Your task to perform on an android device: delete the emails in spam in the gmail app Image 0: 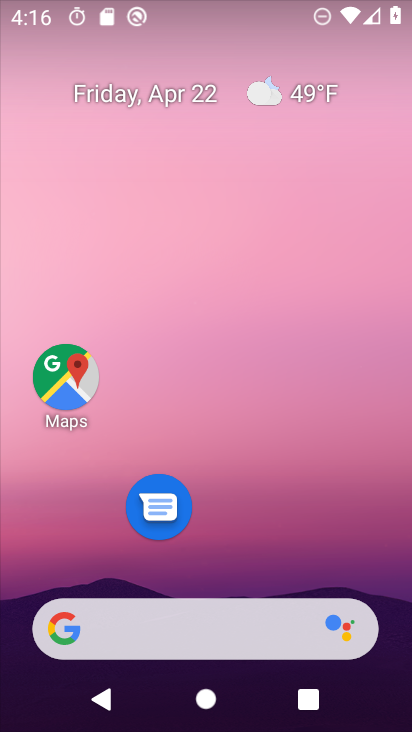
Step 0: drag from (234, 428) to (285, 103)
Your task to perform on an android device: delete the emails in spam in the gmail app Image 1: 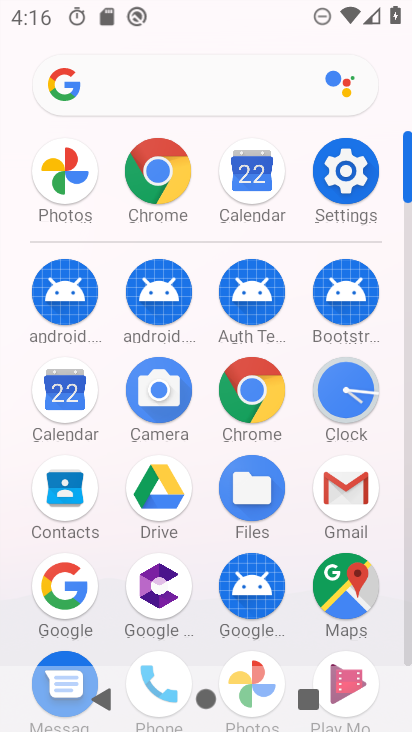
Step 1: click (359, 478)
Your task to perform on an android device: delete the emails in spam in the gmail app Image 2: 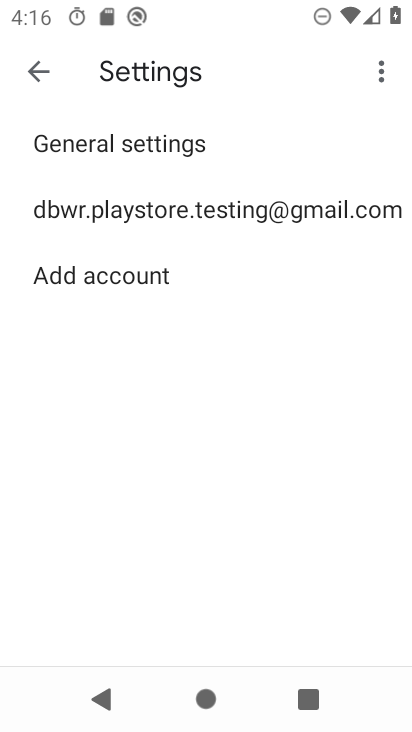
Step 2: press back button
Your task to perform on an android device: delete the emails in spam in the gmail app Image 3: 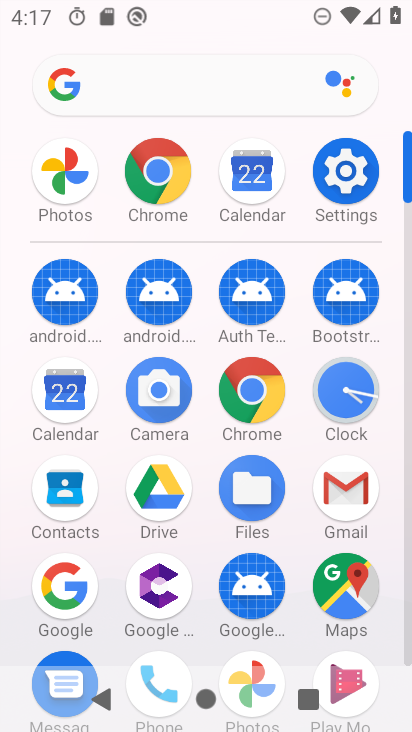
Step 3: click (348, 477)
Your task to perform on an android device: delete the emails in spam in the gmail app Image 4: 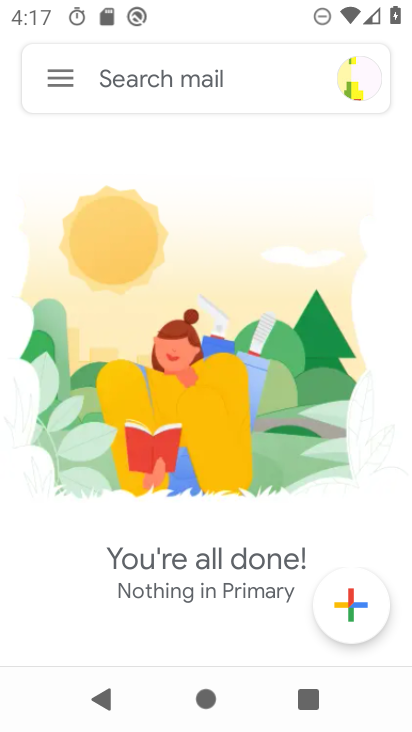
Step 4: click (62, 79)
Your task to perform on an android device: delete the emails in spam in the gmail app Image 5: 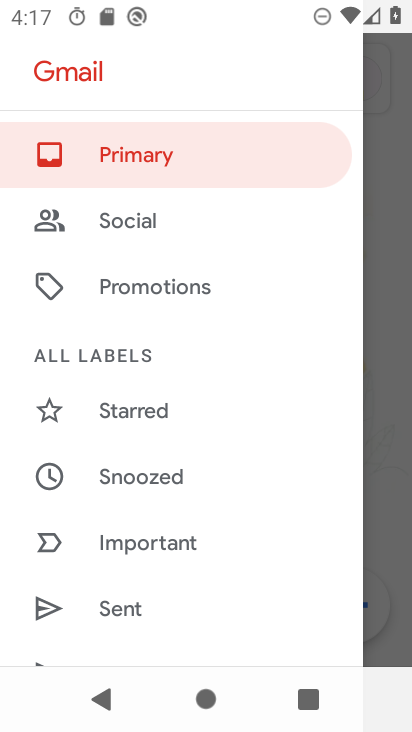
Step 5: drag from (150, 607) to (218, 117)
Your task to perform on an android device: delete the emails in spam in the gmail app Image 6: 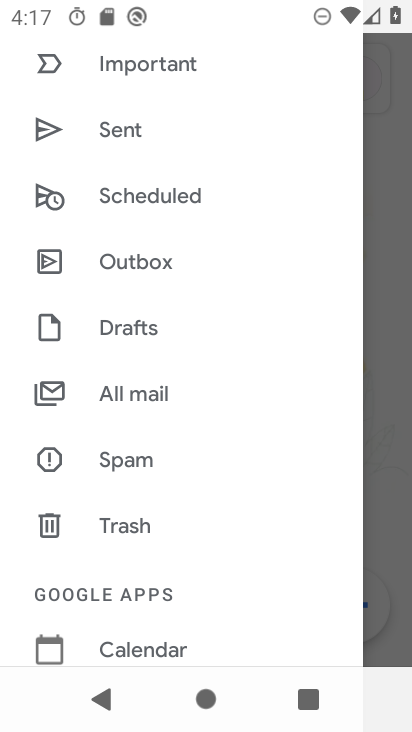
Step 6: click (120, 454)
Your task to perform on an android device: delete the emails in spam in the gmail app Image 7: 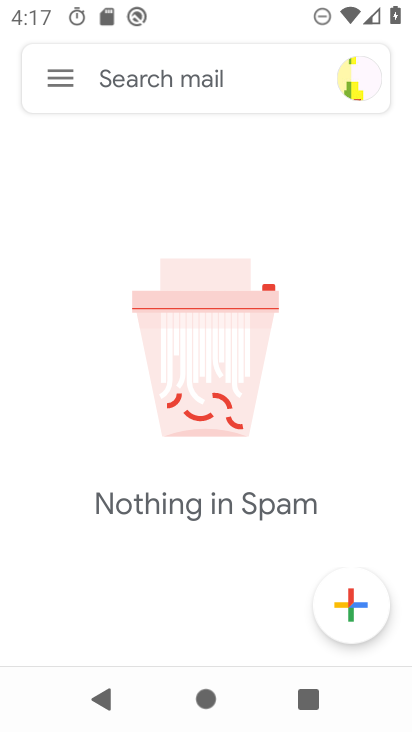
Step 7: task complete